Your task to perform on an android device: turn on data saver in the chrome app Image 0: 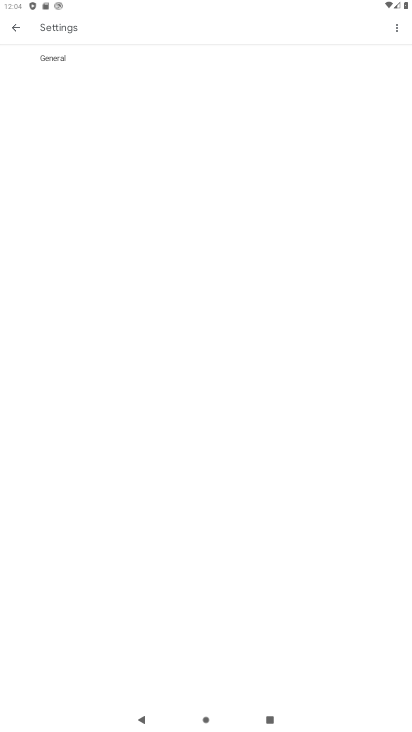
Step 0: press home button
Your task to perform on an android device: turn on data saver in the chrome app Image 1: 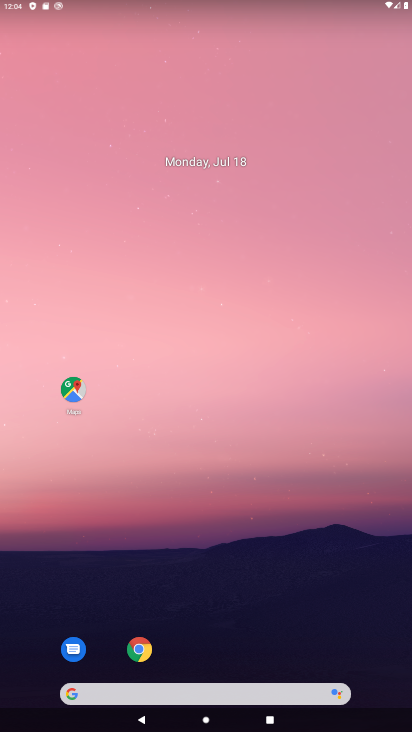
Step 1: drag from (199, 645) to (210, 258)
Your task to perform on an android device: turn on data saver in the chrome app Image 2: 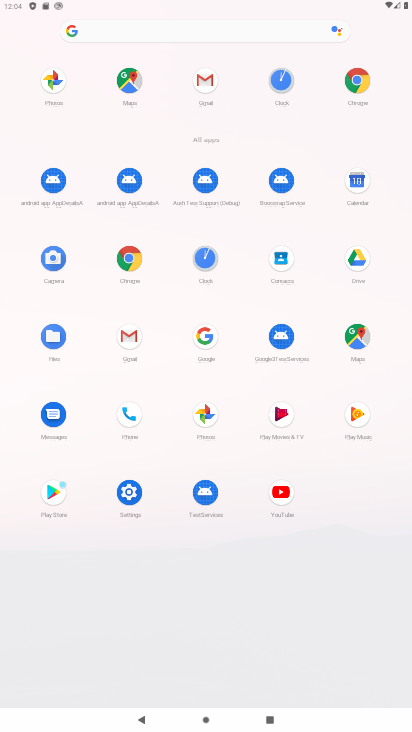
Step 2: click (353, 70)
Your task to perform on an android device: turn on data saver in the chrome app Image 3: 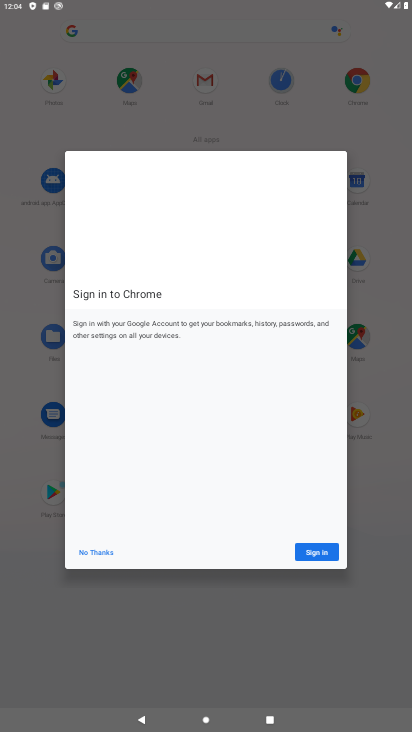
Step 3: click (306, 549)
Your task to perform on an android device: turn on data saver in the chrome app Image 4: 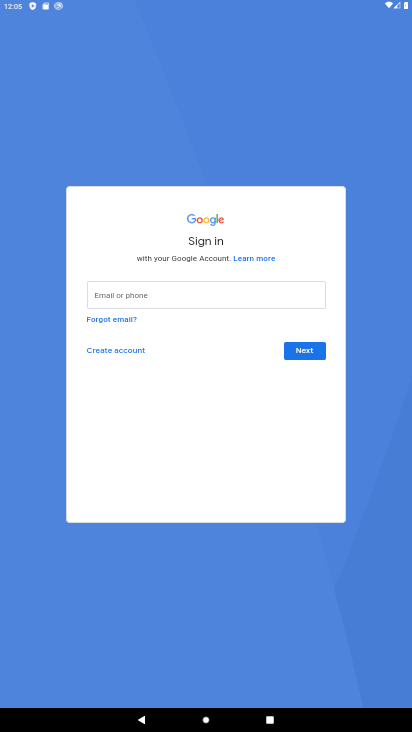
Step 4: task complete